Your task to perform on an android device: clear history in the chrome app Image 0: 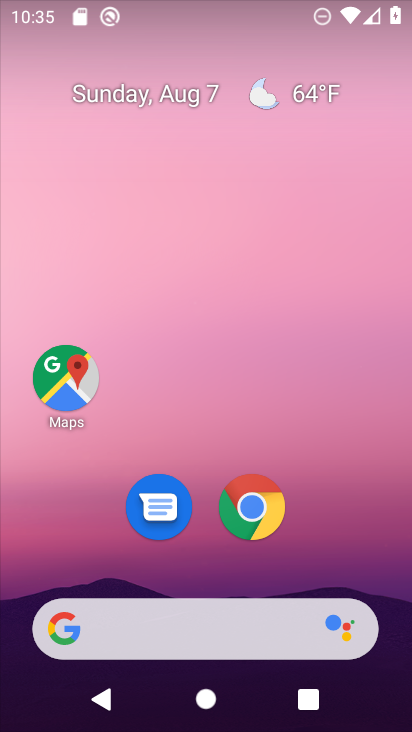
Step 0: drag from (363, 517) to (324, 17)
Your task to perform on an android device: clear history in the chrome app Image 1: 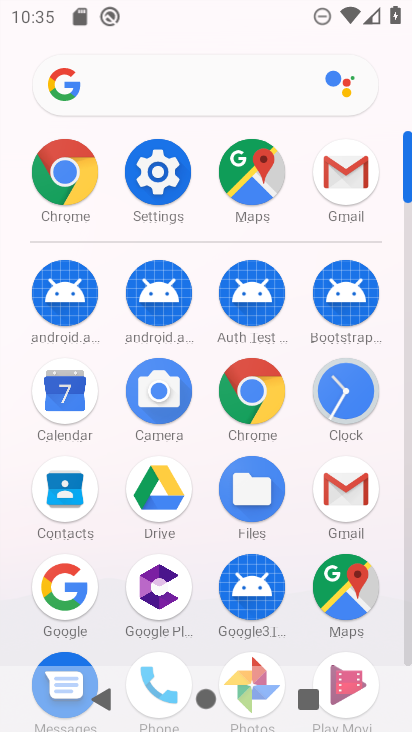
Step 1: click (248, 395)
Your task to perform on an android device: clear history in the chrome app Image 2: 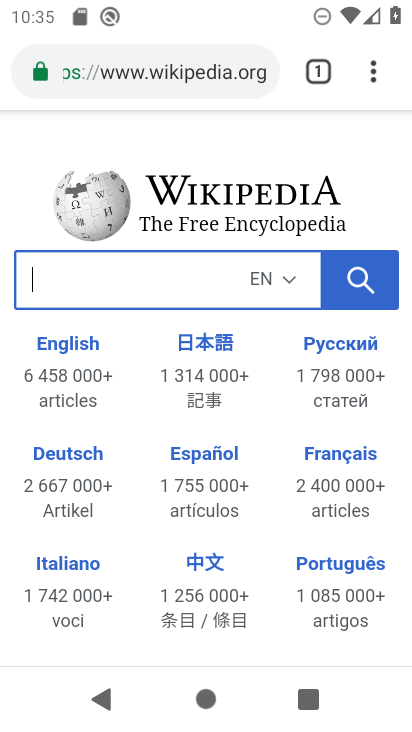
Step 2: drag from (378, 77) to (160, 402)
Your task to perform on an android device: clear history in the chrome app Image 3: 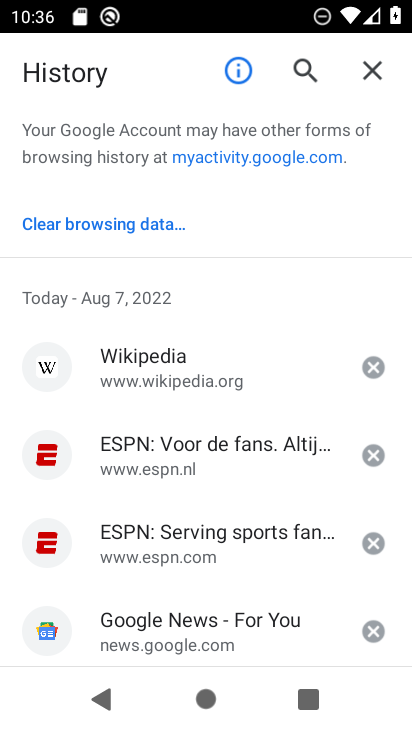
Step 3: click (158, 220)
Your task to perform on an android device: clear history in the chrome app Image 4: 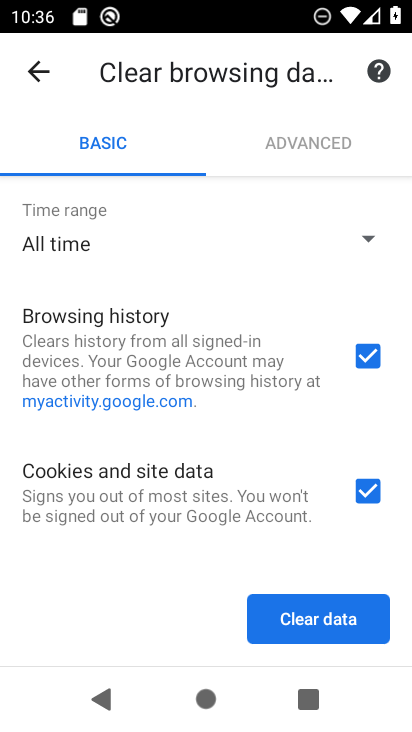
Step 4: click (352, 618)
Your task to perform on an android device: clear history in the chrome app Image 5: 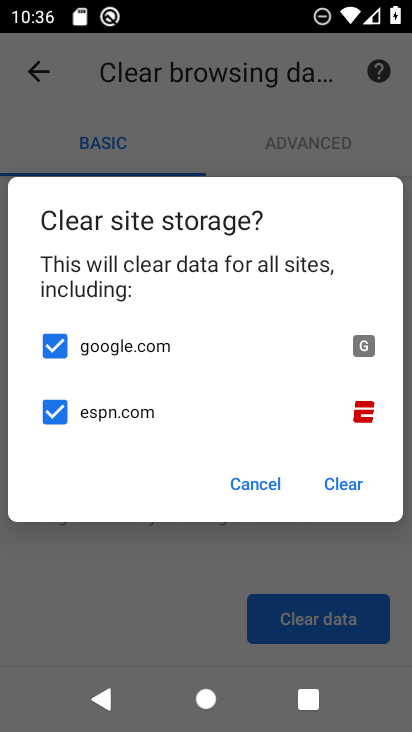
Step 5: click (336, 485)
Your task to perform on an android device: clear history in the chrome app Image 6: 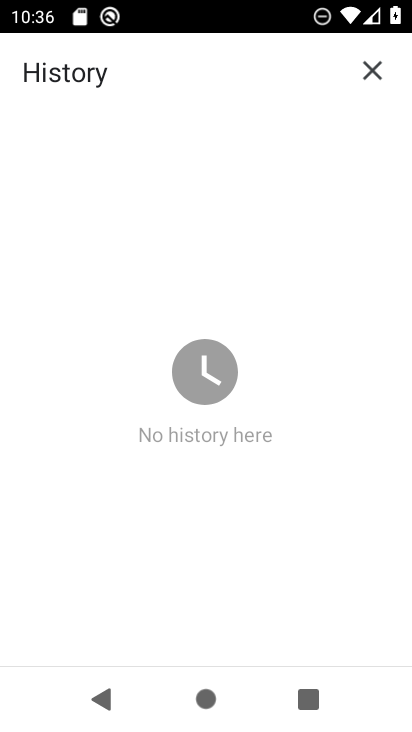
Step 6: task complete